Your task to perform on an android device: Show me productivity apps on the Play Store Image 0: 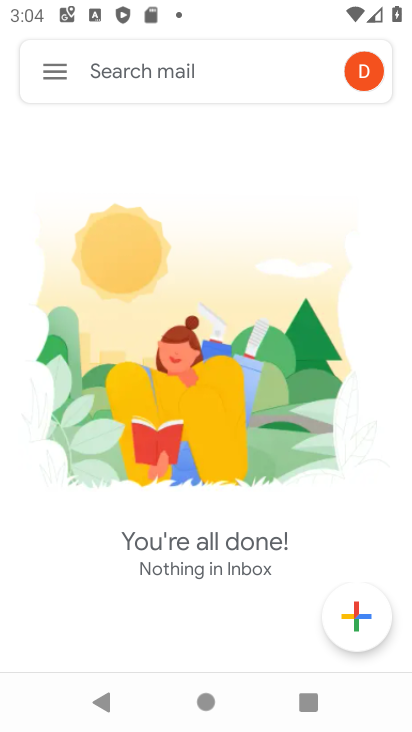
Step 0: press home button
Your task to perform on an android device: Show me productivity apps on the Play Store Image 1: 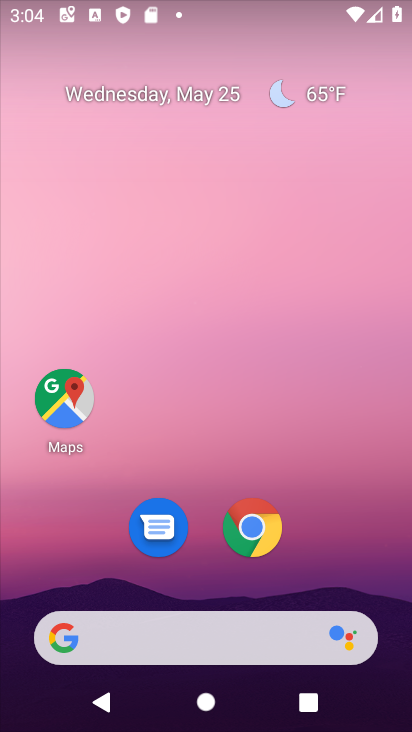
Step 1: drag from (229, 636) to (213, 4)
Your task to perform on an android device: Show me productivity apps on the Play Store Image 2: 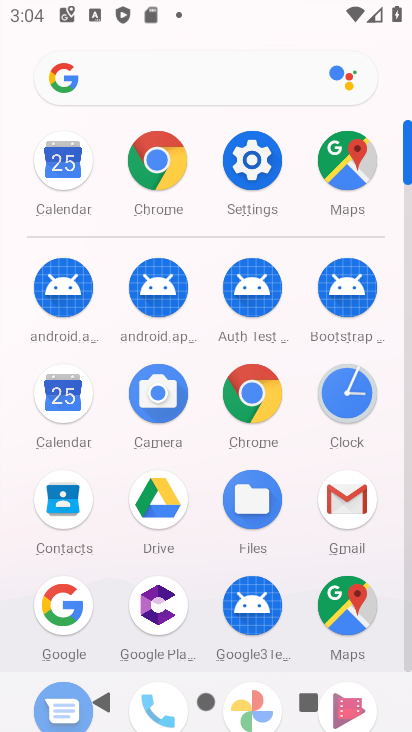
Step 2: drag from (294, 578) to (286, 80)
Your task to perform on an android device: Show me productivity apps on the Play Store Image 3: 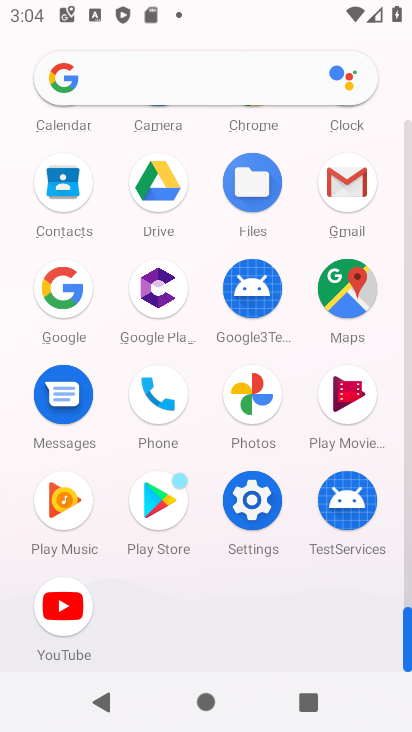
Step 3: click (156, 525)
Your task to perform on an android device: Show me productivity apps on the Play Store Image 4: 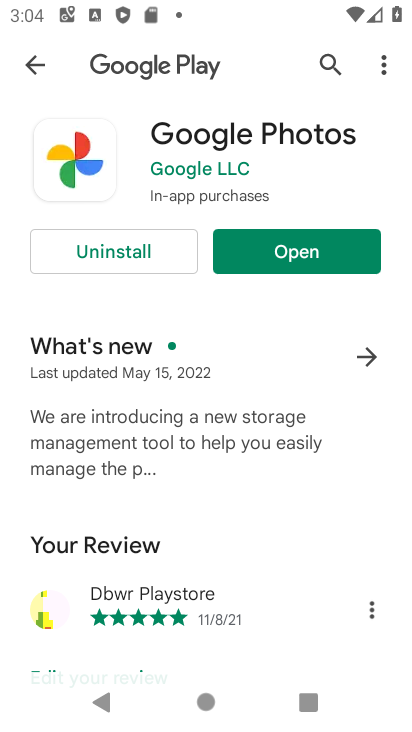
Step 4: press home button
Your task to perform on an android device: Show me productivity apps on the Play Store Image 5: 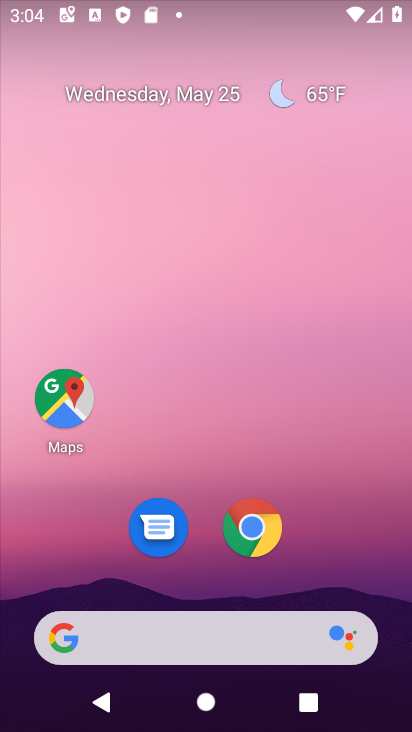
Step 5: drag from (272, 632) to (212, 38)
Your task to perform on an android device: Show me productivity apps on the Play Store Image 6: 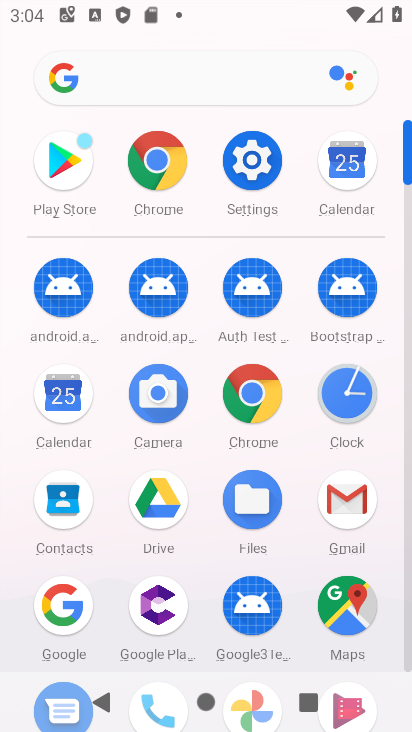
Step 6: drag from (312, 601) to (287, 165)
Your task to perform on an android device: Show me productivity apps on the Play Store Image 7: 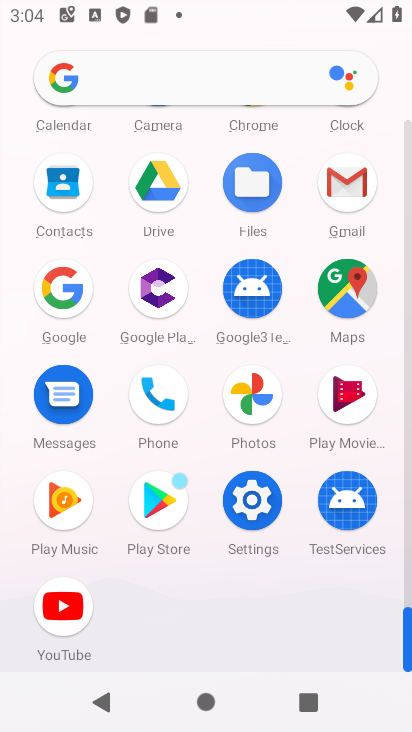
Step 7: click (176, 535)
Your task to perform on an android device: Show me productivity apps on the Play Store Image 8: 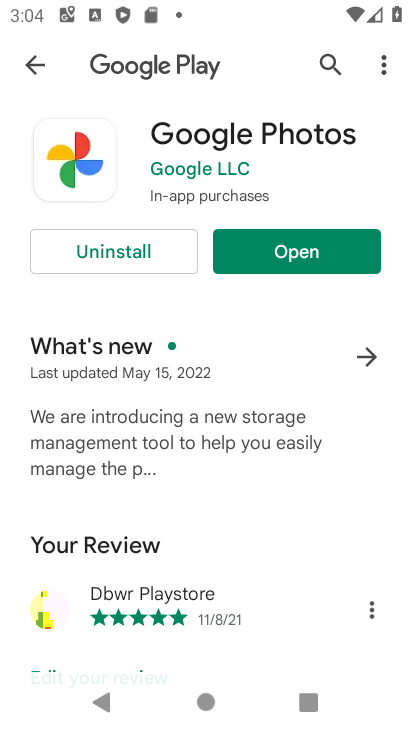
Step 8: press back button
Your task to perform on an android device: Show me productivity apps on the Play Store Image 9: 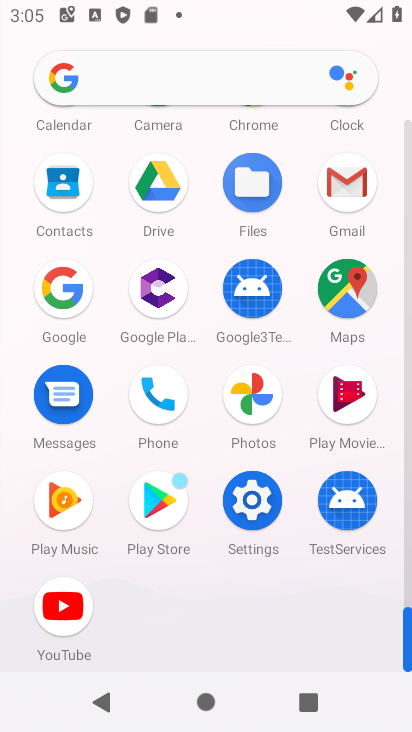
Step 9: click (169, 511)
Your task to perform on an android device: Show me productivity apps on the Play Store Image 10: 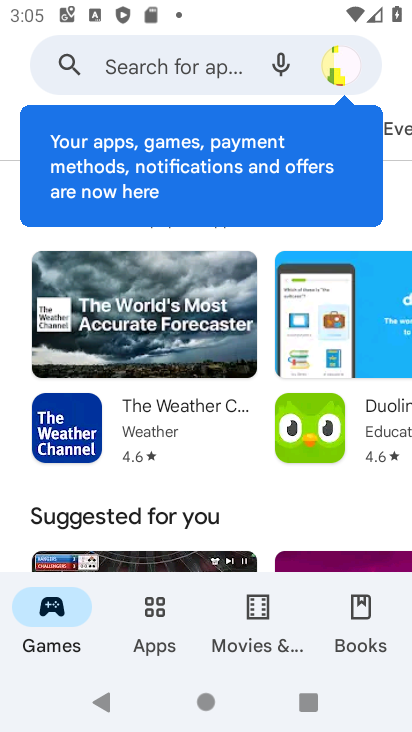
Step 10: drag from (248, 555) to (268, 116)
Your task to perform on an android device: Show me productivity apps on the Play Store Image 11: 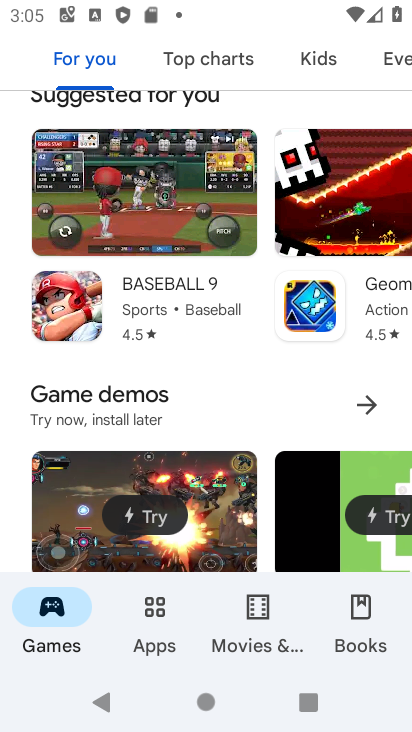
Step 11: drag from (257, 512) to (267, 178)
Your task to perform on an android device: Show me productivity apps on the Play Store Image 12: 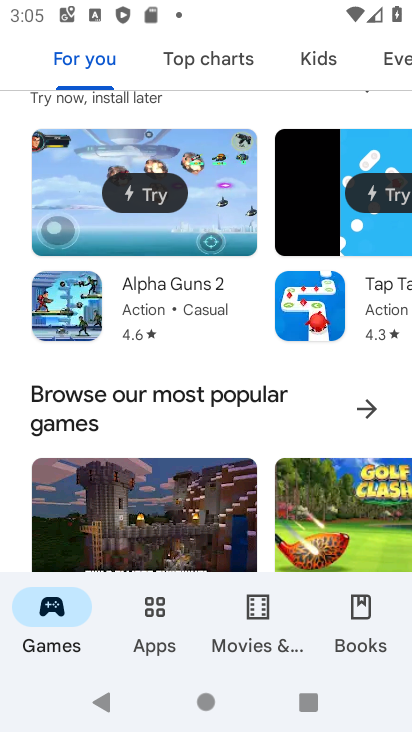
Step 12: click (152, 611)
Your task to perform on an android device: Show me productivity apps on the Play Store Image 13: 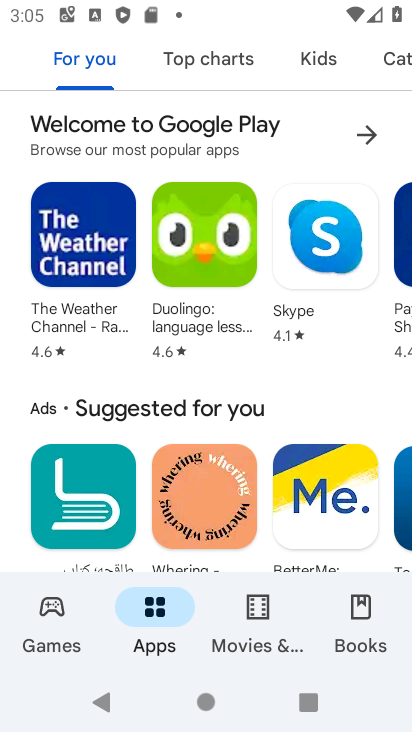
Step 13: drag from (304, 356) to (313, 2)
Your task to perform on an android device: Show me productivity apps on the Play Store Image 14: 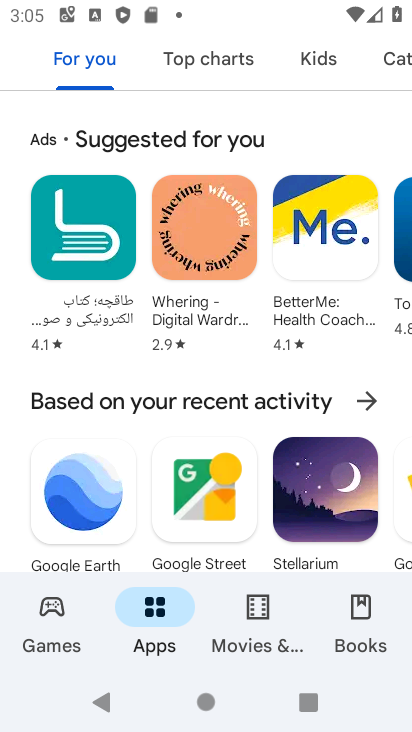
Step 14: drag from (291, 512) to (288, 23)
Your task to perform on an android device: Show me productivity apps on the Play Store Image 15: 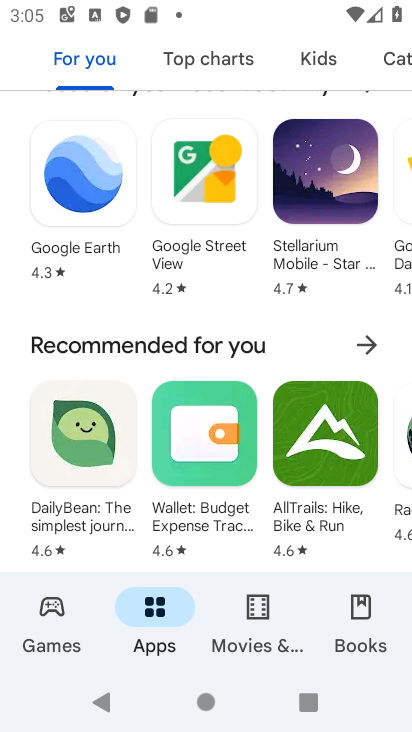
Step 15: drag from (281, 349) to (296, 123)
Your task to perform on an android device: Show me productivity apps on the Play Store Image 16: 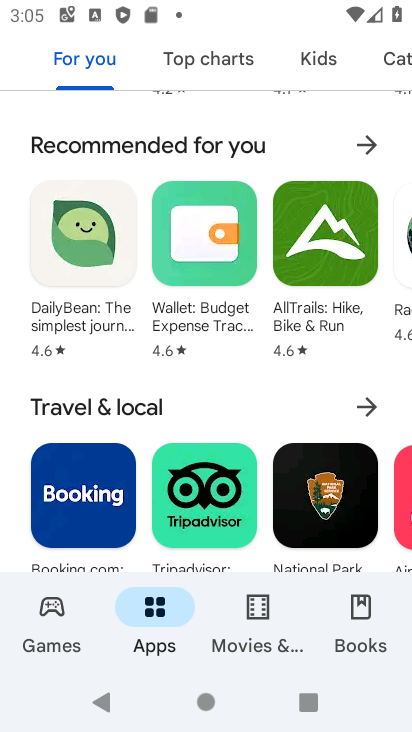
Step 16: drag from (282, 416) to (295, 151)
Your task to perform on an android device: Show me productivity apps on the Play Store Image 17: 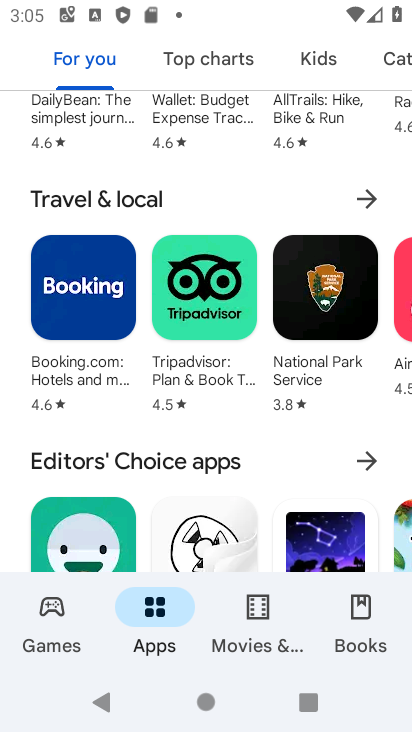
Step 17: drag from (280, 419) to (251, 129)
Your task to perform on an android device: Show me productivity apps on the Play Store Image 18: 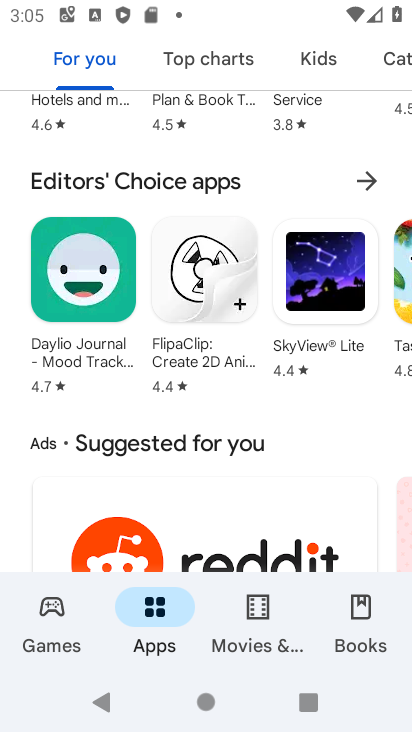
Step 18: drag from (296, 495) to (302, 12)
Your task to perform on an android device: Show me productivity apps on the Play Store Image 19: 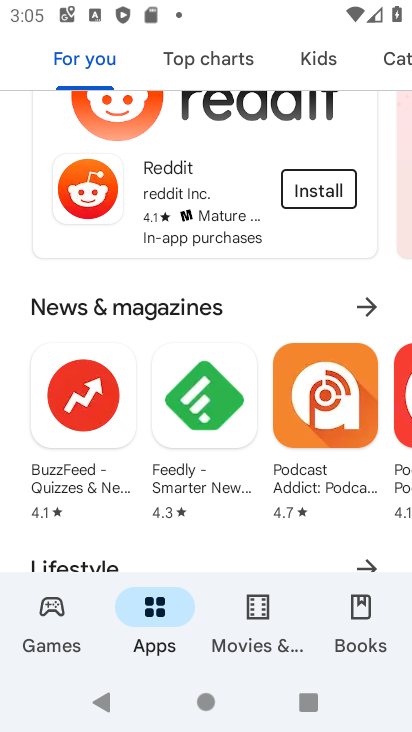
Step 19: drag from (298, 547) to (296, 17)
Your task to perform on an android device: Show me productivity apps on the Play Store Image 20: 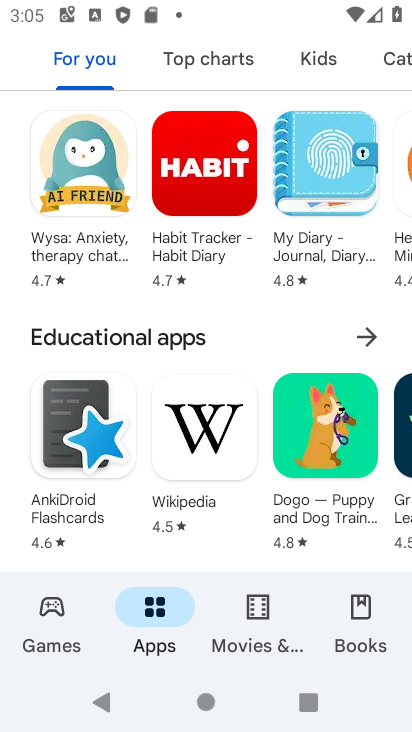
Step 20: drag from (257, 555) to (242, 2)
Your task to perform on an android device: Show me productivity apps on the Play Store Image 21: 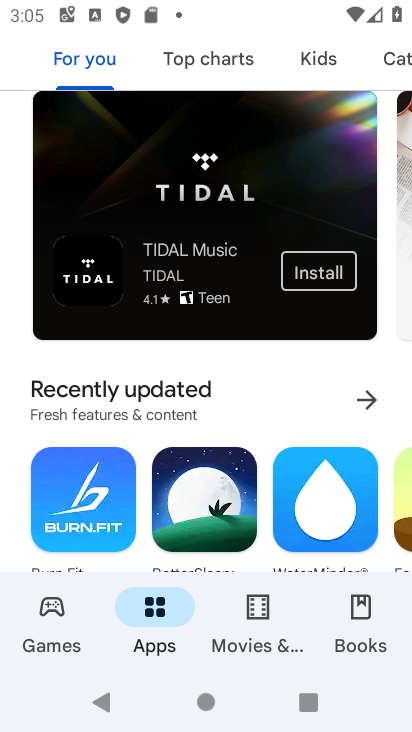
Step 21: drag from (253, 533) to (305, 19)
Your task to perform on an android device: Show me productivity apps on the Play Store Image 22: 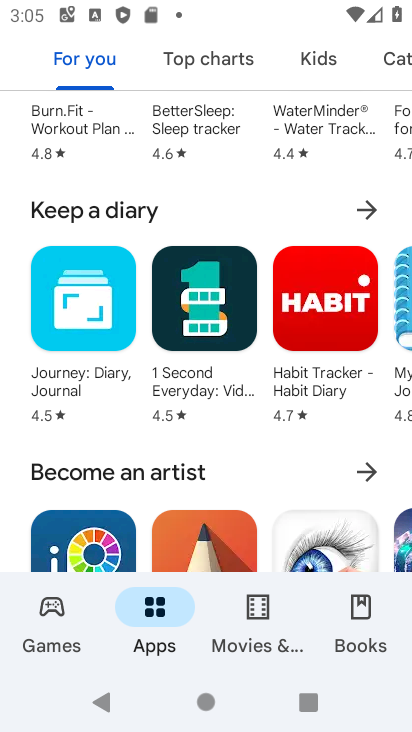
Step 22: drag from (234, 466) to (360, 21)
Your task to perform on an android device: Show me productivity apps on the Play Store Image 23: 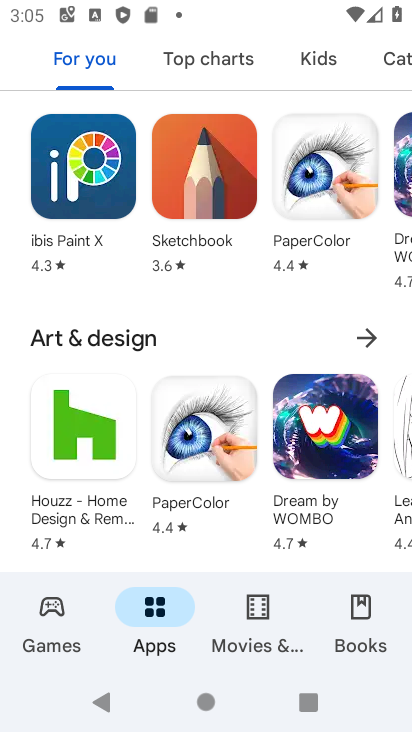
Step 23: drag from (281, 532) to (275, 63)
Your task to perform on an android device: Show me productivity apps on the Play Store Image 24: 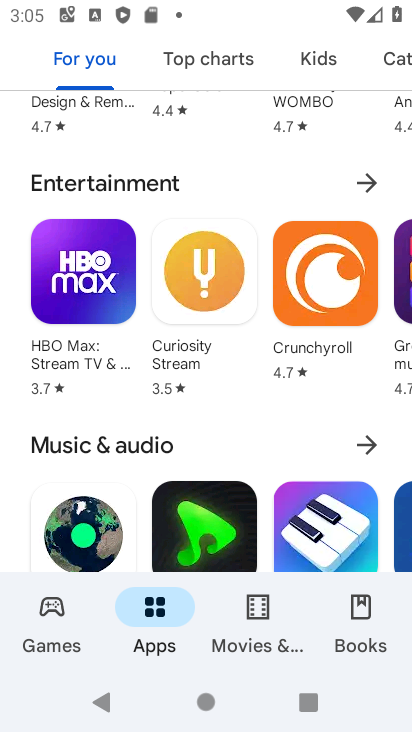
Step 24: drag from (260, 475) to (285, 75)
Your task to perform on an android device: Show me productivity apps on the Play Store Image 25: 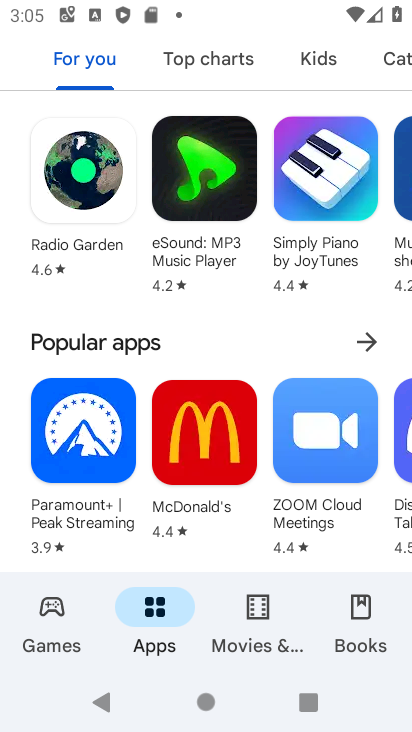
Step 25: click (148, 559)
Your task to perform on an android device: Show me productivity apps on the Play Store Image 26: 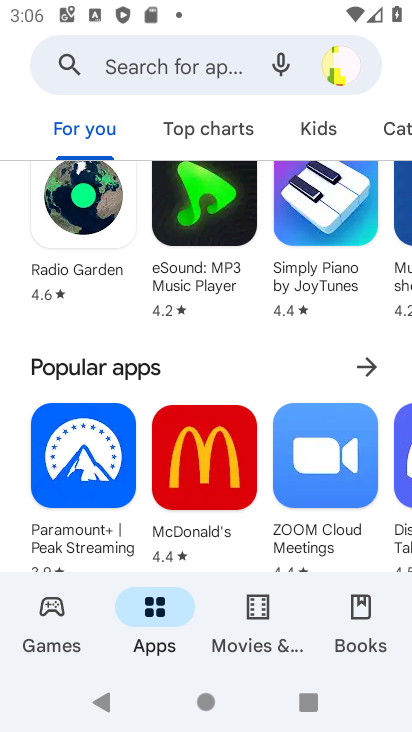
Step 26: drag from (171, 552) to (232, 160)
Your task to perform on an android device: Show me productivity apps on the Play Store Image 27: 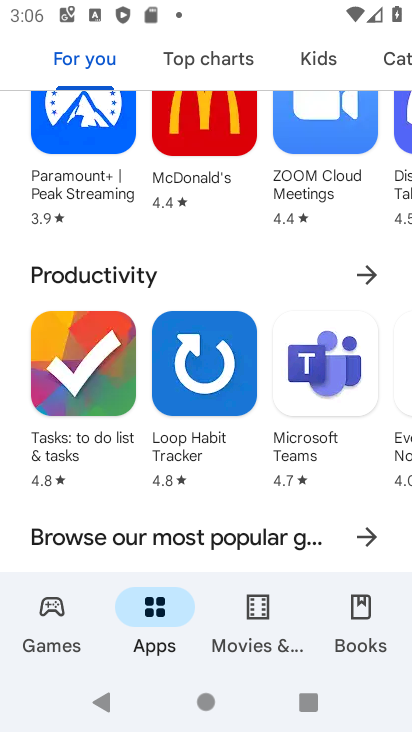
Step 27: click (374, 273)
Your task to perform on an android device: Show me productivity apps on the Play Store Image 28: 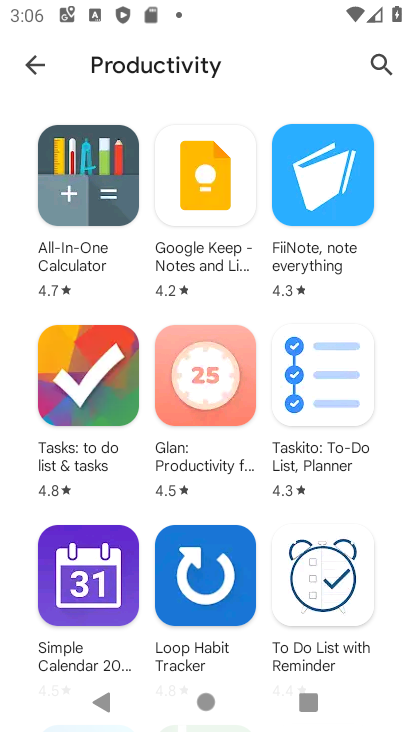
Step 28: task complete